Your task to perform on an android device: change the upload size in google photos Image 0: 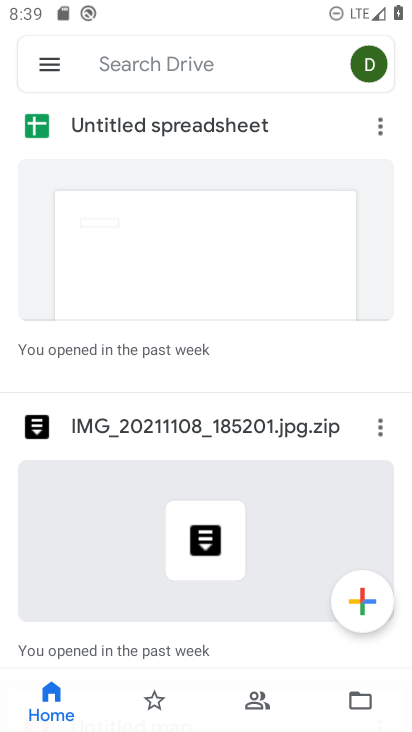
Step 0: press home button
Your task to perform on an android device: change the upload size in google photos Image 1: 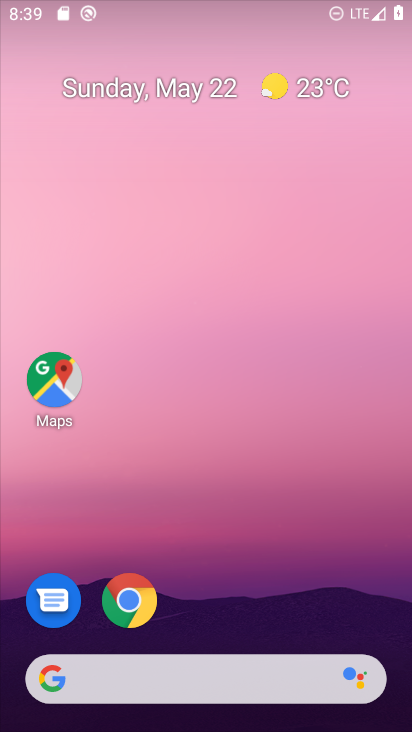
Step 1: drag from (370, 629) to (298, 51)
Your task to perform on an android device: change the upload size in google photos Image 2: 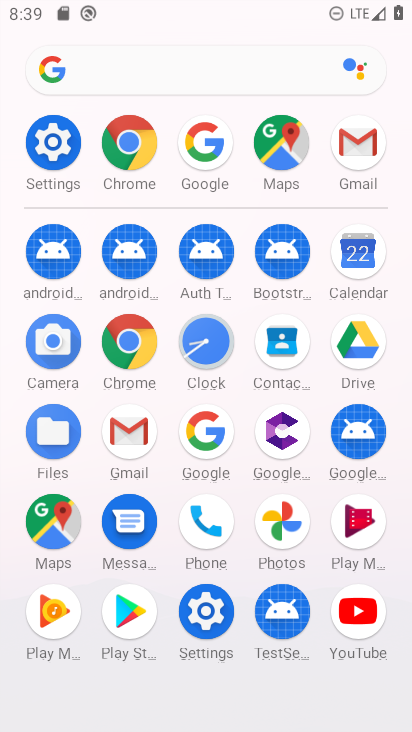
Step 2: click (266, 522)
Your task to perform on an android device: change the upload size in google photos Image 3: 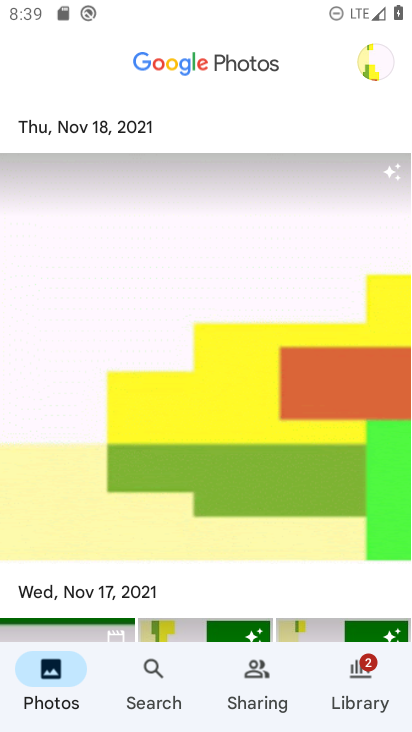
Step 3: click (378, 62)
Your task to perform on an android device: change the upload size in google photos Image 4: 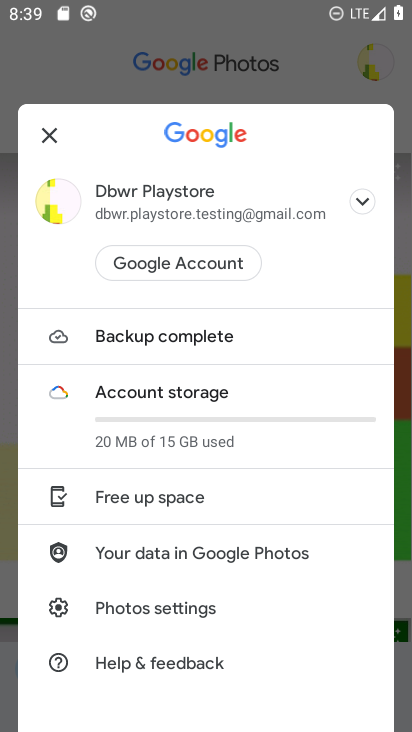
Step 4: click (216, 621)
Your task to perform on an android device: change the upload size in google photos Image 5: 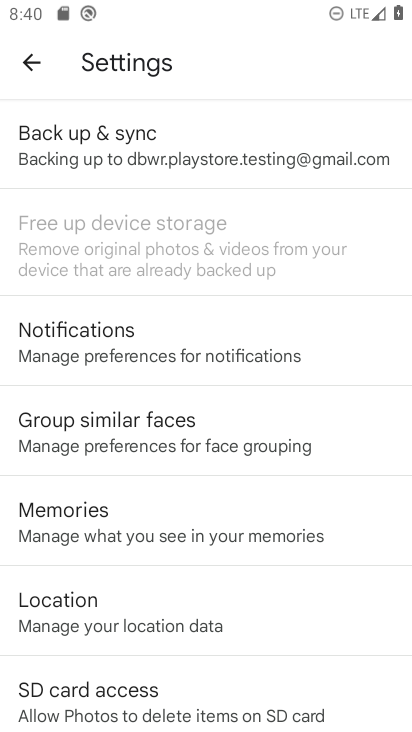
Step 5: click (144, 143)
Your task to perform on an android device: change the upload size in google photos Image 6: 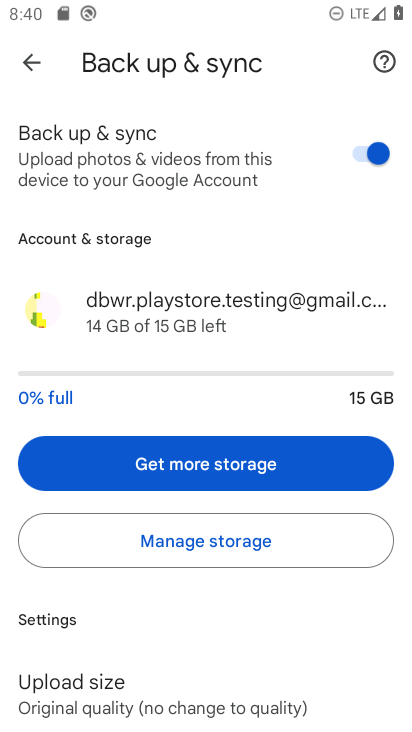
Step 6: click (177, 681)
Your task to perform on an android device: change the upload size in google photos Image 7: 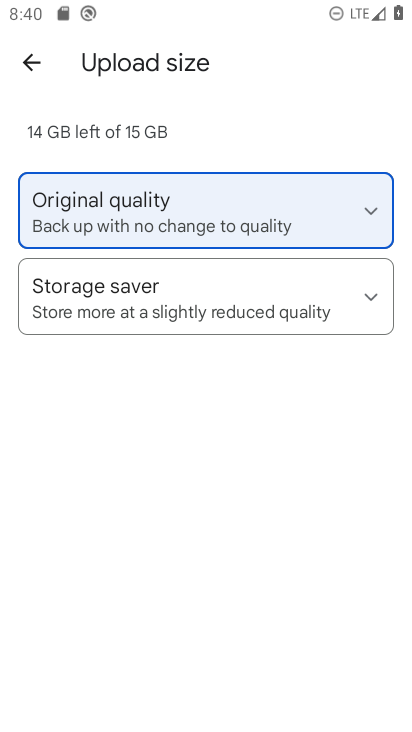
Step 7: click (148, 314)
Your task to perform on an android device: change the upload size in google photos Image 8: 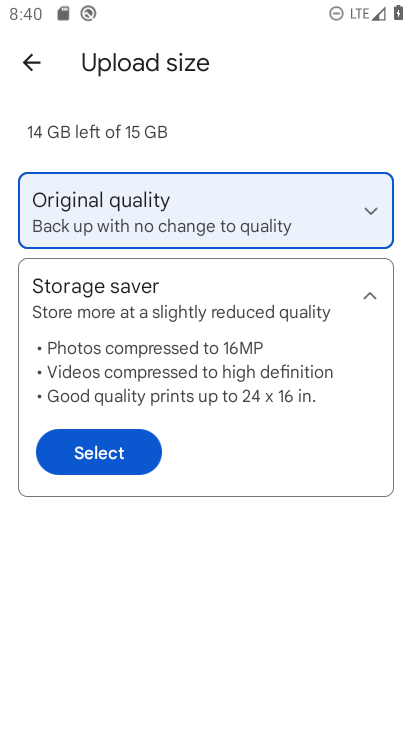
Step 8: click (96, 451)
Your task to perform on an android device: change the upload size in google photos Image 9: 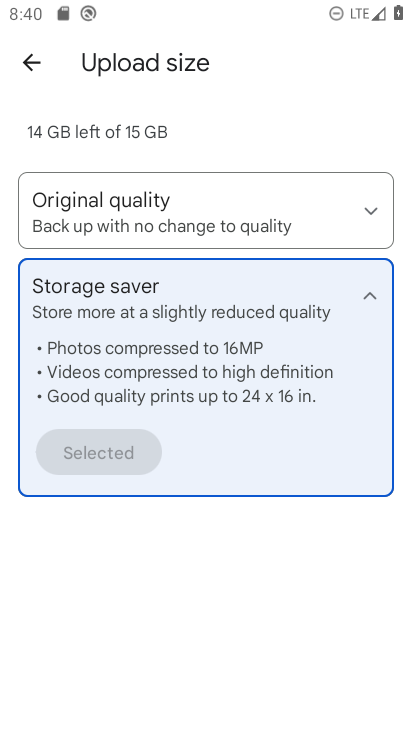
Step 9: task complete